Your task to perform on an android device: move a message to another label in the gmail app Image 0: 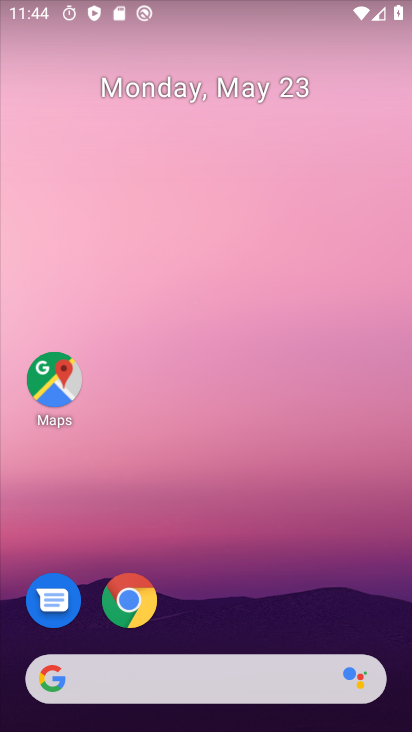
Step 0: drag from (258, 585) to (235, 108)
Your task to perform on an android device: move a message to another label in the gmail app Image 1: 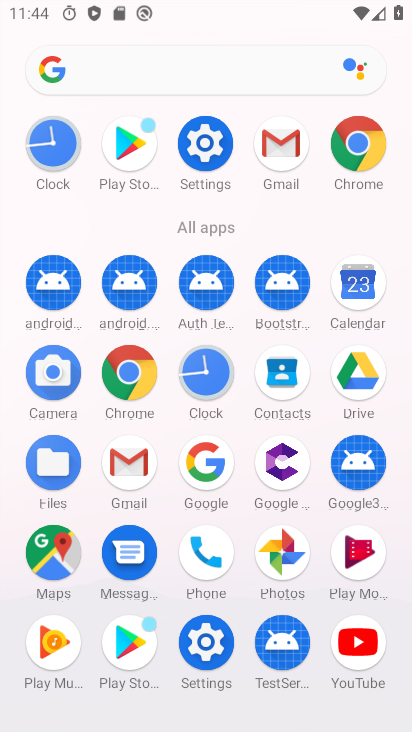
Step 1: click (265, 142)
Your task to perform on an android device: move a message to another label in the gmail app Image 2: 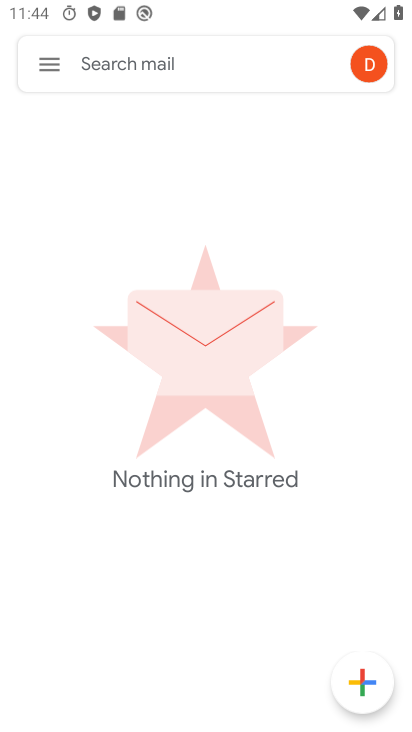
Step 2: click (52, 70)
Your task to perform on an android device: move a message to another label in the gmail app Image 3: 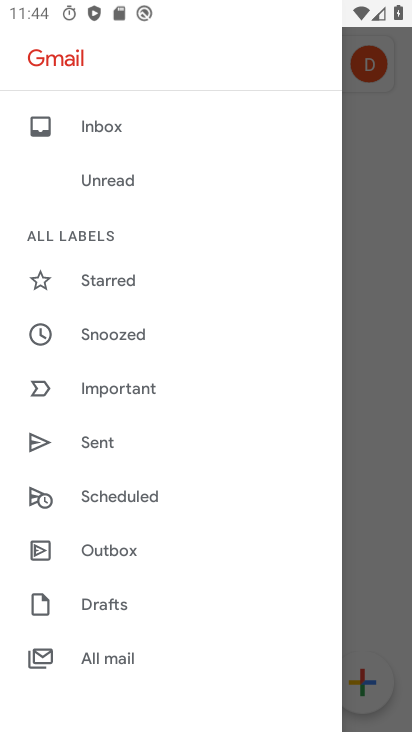
Step 3: drag from (128, 612) to (194, 153)
Your task to perform on an android device: move a message to another label in the gmail app Image 4: 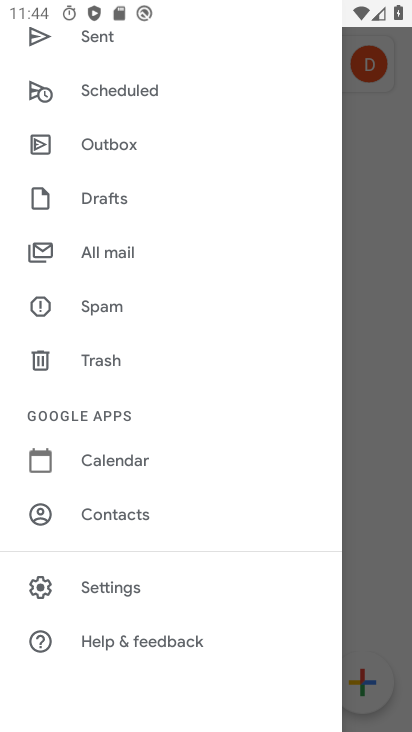
Step 4: click (111, 248)
Your task to perform on an android device: move a message to another label in the gmail app Image 5: 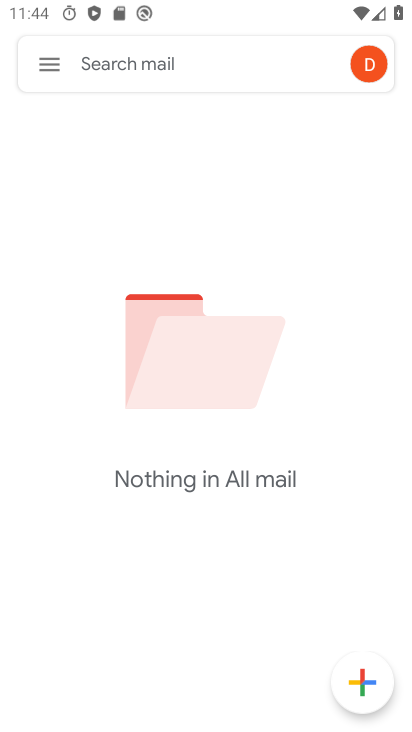
Step 5: task complete